Your task to perform on an android device: Open settings Image 0: 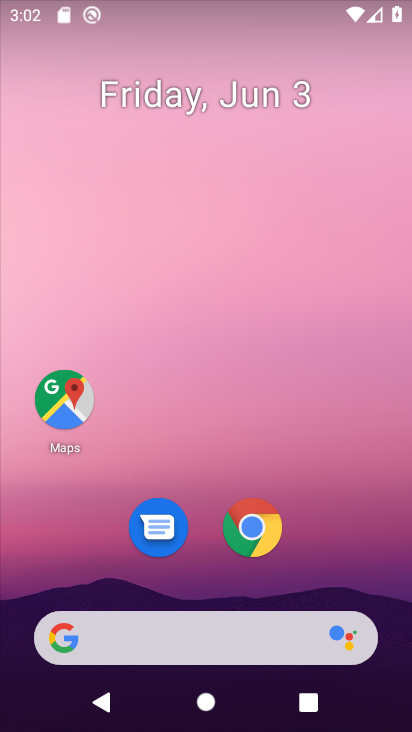
Step 0: drag from (317, 559) to (262, 75)
Your task to perform on an android device: Open settings Image 1: 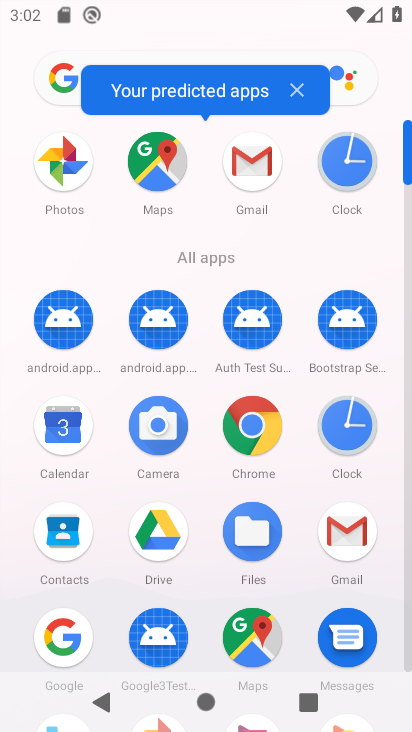
Step 1: drag from (111, 576) to (142, 249)
Your task to perform on an android device: Open settings Image 2: 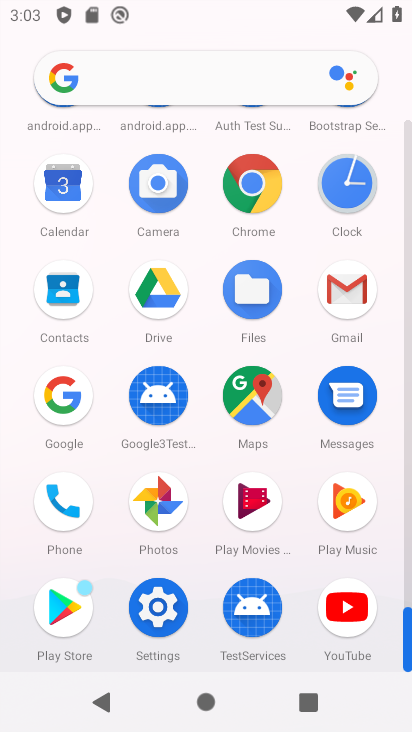
Step 2: click (159, 606)
Your task to perform on an android device: Open settings Image 3: 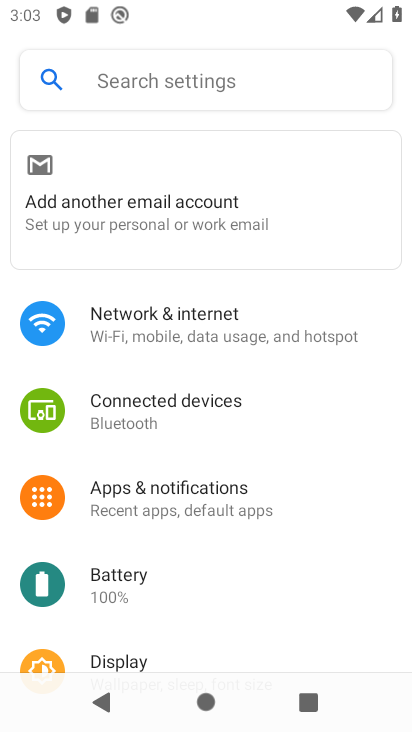
Step 3: task complete